Your task to perform on an android device: Add "usb-b" to the cart on amazon.com Image 0: 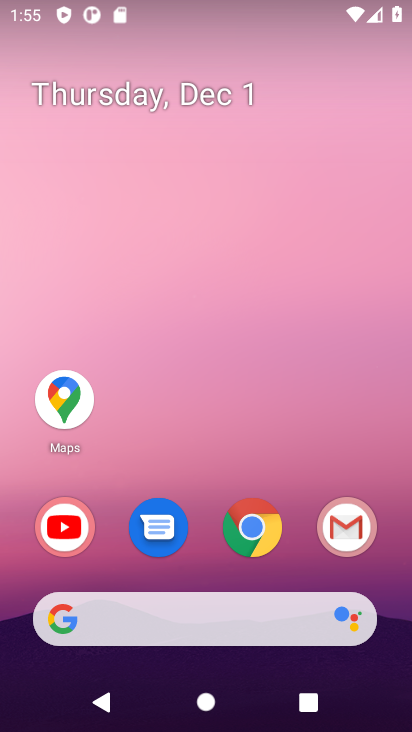
Step 0: click (244, 535)
Your task to perform on an android device: Add "usb-b" to the cart on amazon.com Image 1: 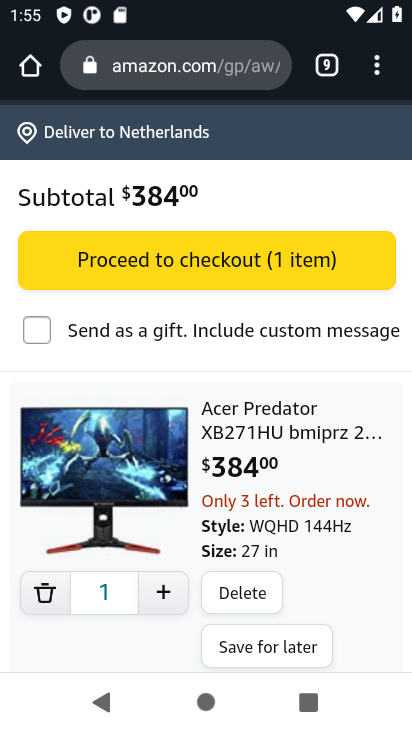
Step 1: drag from (207, 271) to (202, 446)
Your task to perform on an android device: Add "usb-b" to the cart on amazon.com Image 2: 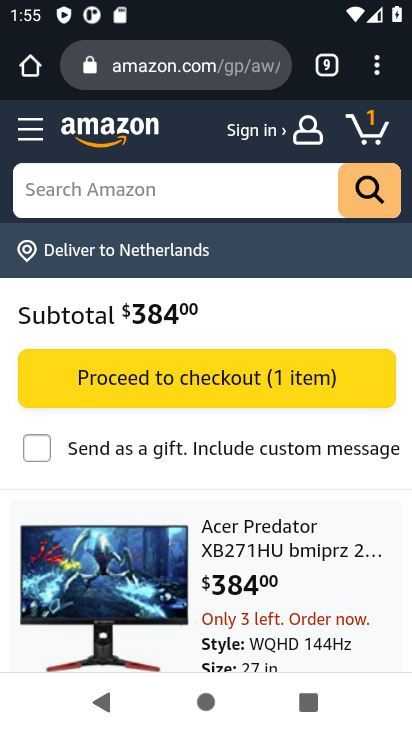
Step 2: click (86, 187)
Your task to perform on an android device: Add "usb-b" to the cart on amazon.com Image 3: 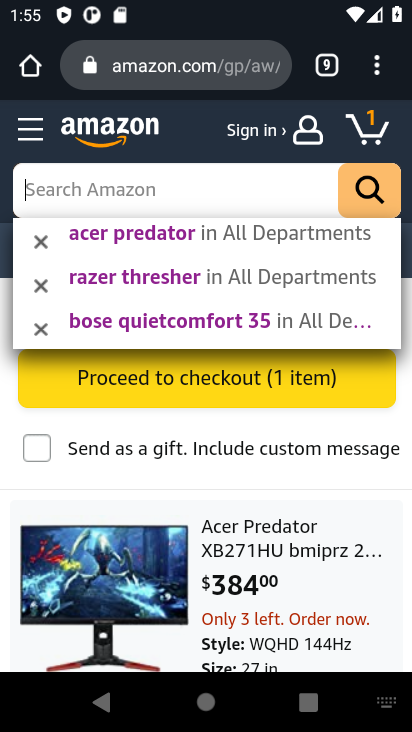
Step 3: type "usb-b"
Your task to perform on an android device: Add "usb-b" to the cart on amazon.com Image 4: 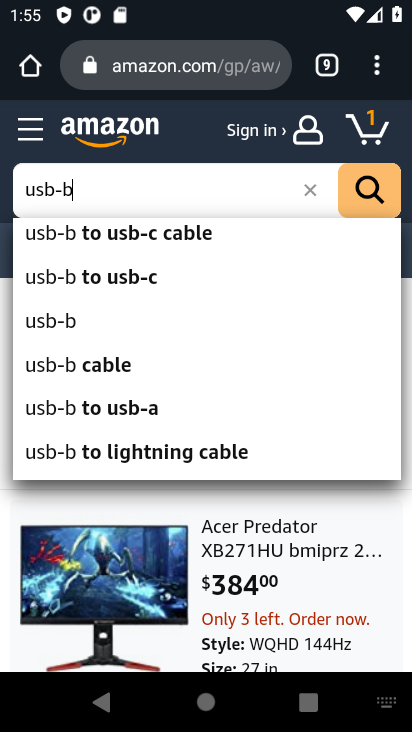
Step 4: click (49, 328)
Your task to perform on an android device: Add "usb-b" to the cart on amazon.com Image 5: 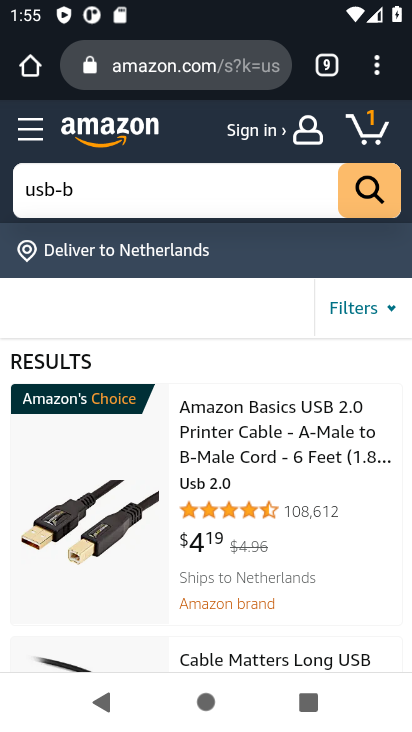
Step 5: drag from (236, 527) to (237, 451)
Your task to perform on an android device: Add "usb-b" to the cart on amazon.com Image 6: 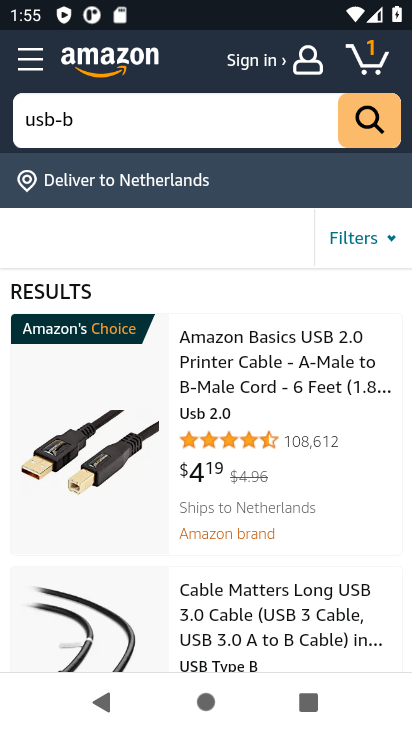
Step 6: drag from (232, 515) to (234, 372)
Your task to perform on an android device: Add "usb-b" to the cart on amazon.com Image 7: 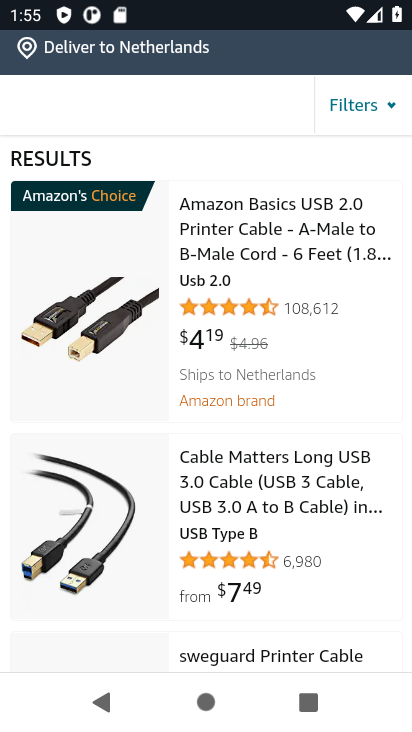
Step 7: drag from (233, 528) to (241, 373)
Your task to perform on an android device: Add "usb-b" to the cart on amazon.com Image 8: 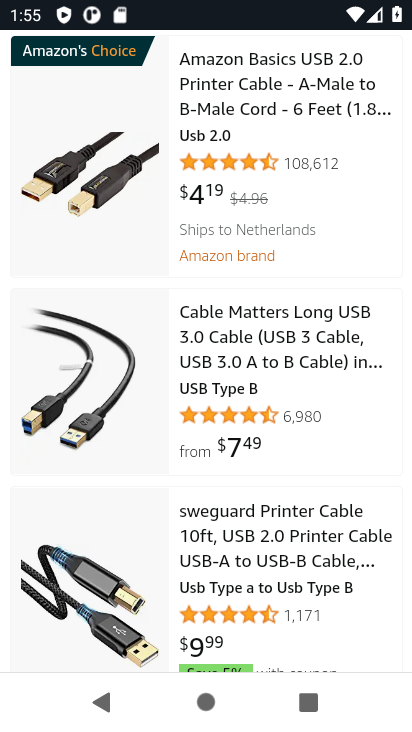
Step 8: click (246, 355)
Your task to perform on an android device: Add "usb-b" to the cart on amazon.com Image 9: 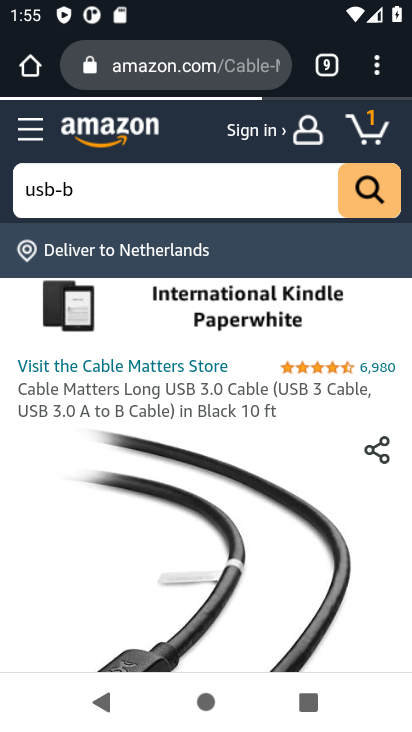
Step 9: drag from (177, 526) to (184, 284)
Your task to perform on an android device: Add "usb-b" to the cart on amazon.com Image 10: 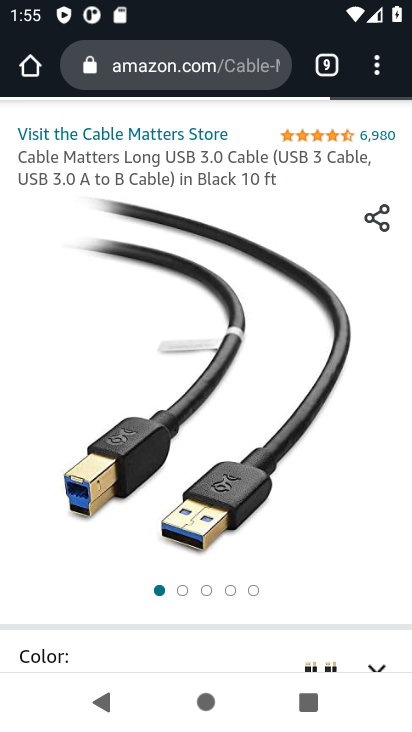
Step 10: drag from (170, 459) to (170, 222)
Your task to perform on an android device: Add "usb-b" to the cart on amazon.com Image 11: 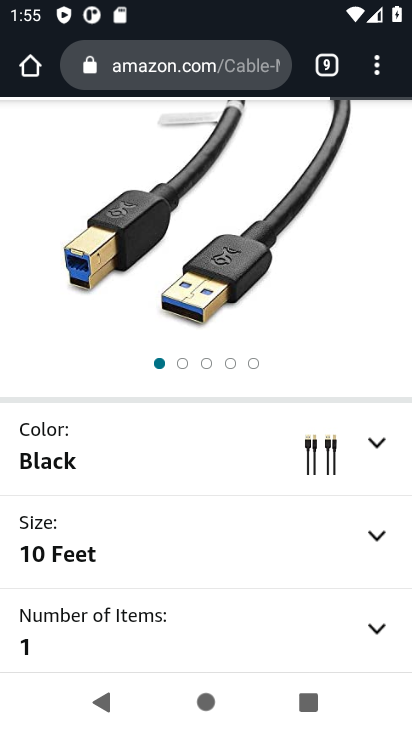
Step 11: drag from (166, 475) to (178, 222)
Your task to perform on an android device: Add "usb-b" to the cart on amazon.com Image 12: 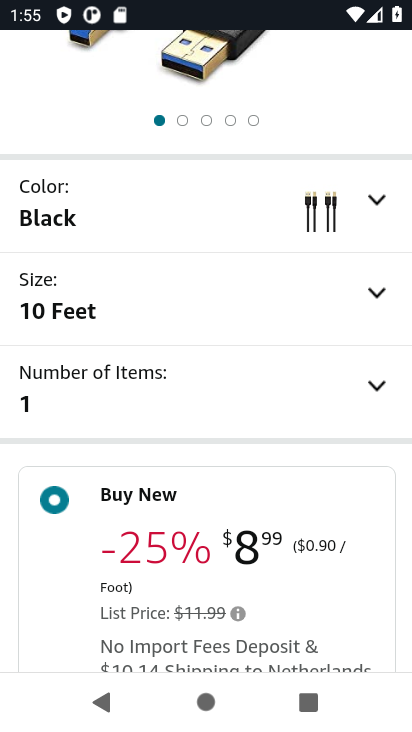
Step 12: drag from (190, 482) to (198, 247)
Your task to perform on an android device: Add "usb-b" to the cart on amazon.com Image 13: 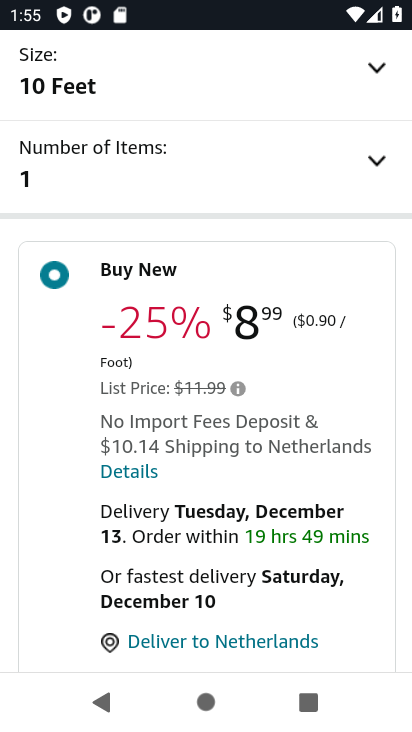
Step 13: drag from (192, 483) to (197, 221)
Your task to perform on an android device: Add "usb-b" to the cart on amazon.com Image 14: 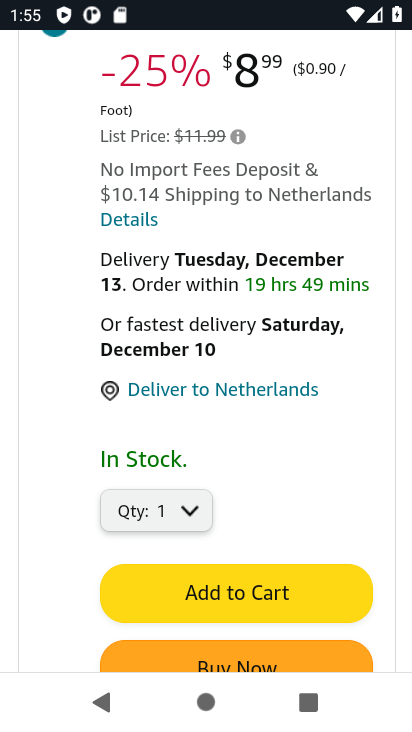
Step 14: drag from (201, 464) to (207, 293)
Your task to perform on an android device: Add "usb-b" to the cart on amazon.com Image 15: 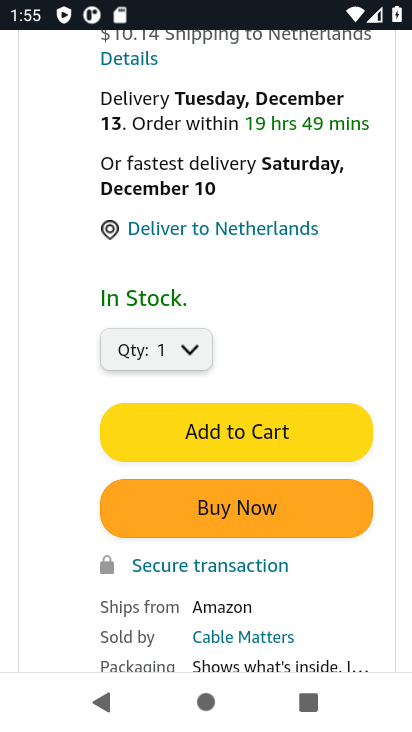
Step 15: click (208, 433)
Your task to perform on an android device: Add "usb-b" to the cart on amazon.com Image 16: 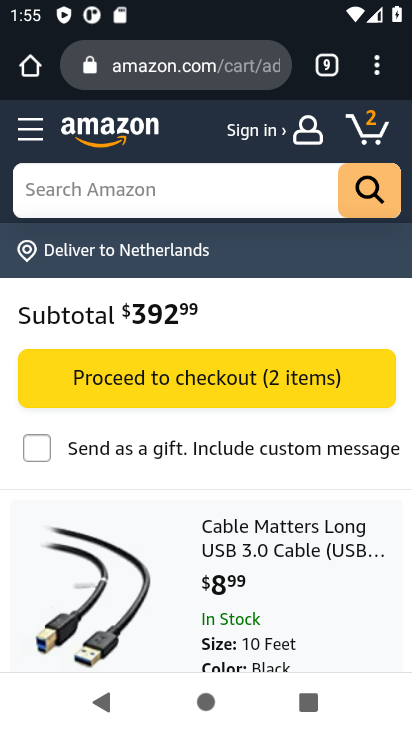
Step 16: task complete